Your task to perform on an android device: open sync settings in chrome Image 0: 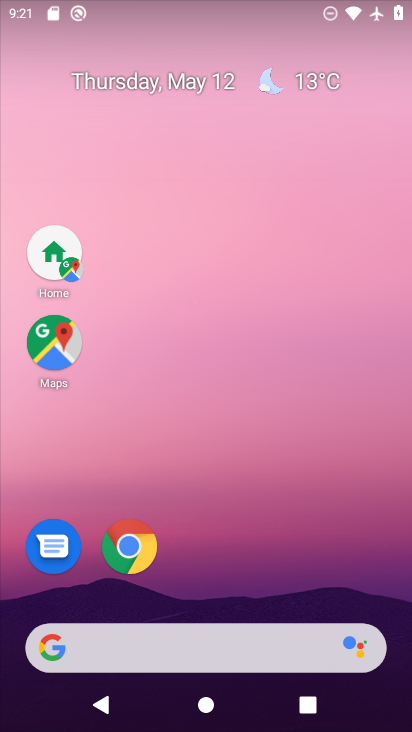
Step 0: press home button
Your task to perform on an android device: open sync settings in chrome Image 1: 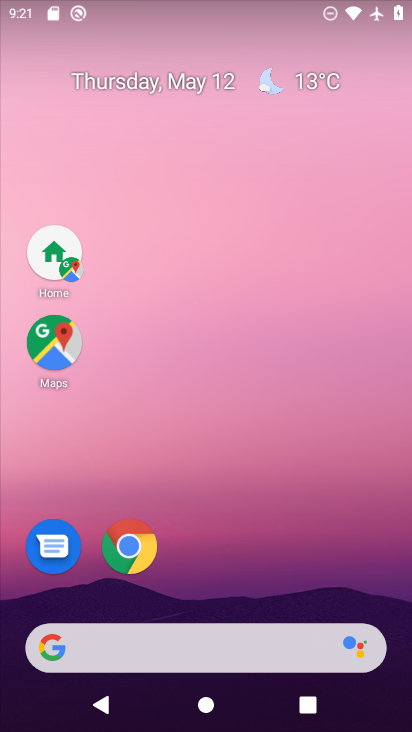
Step 1: click (135, 562)
Your task to perform on an android device: open sync settings in chrome Image 2: 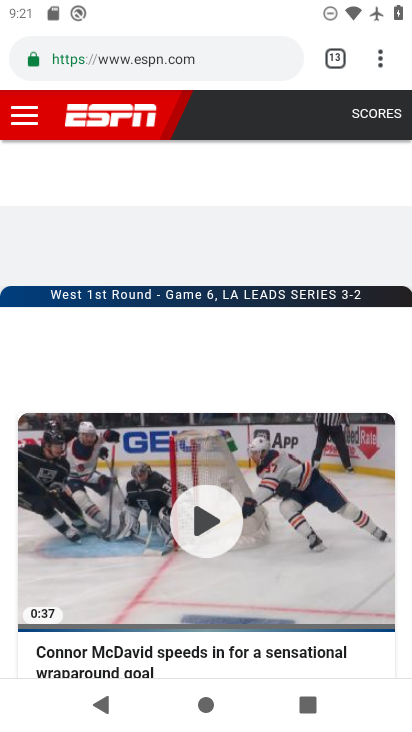
Step 2: drag from (377, 67) to (309, 572)
Your task to perform on an android device: open sync settings in chrome Image 3: 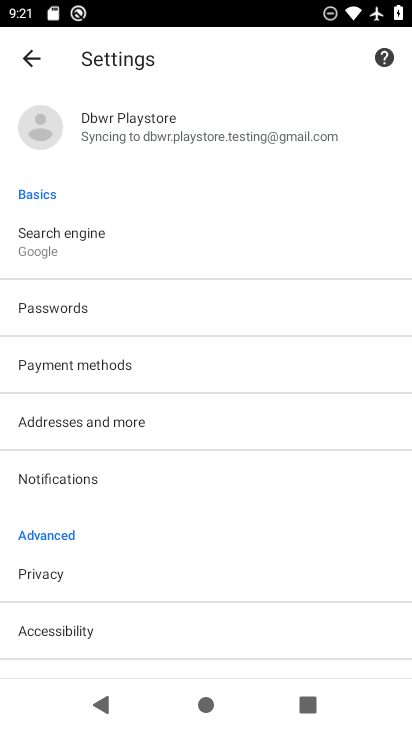
Step 3: click (211, 141)
Your task to perform on an android device: open sync settings in chrome Image 4: 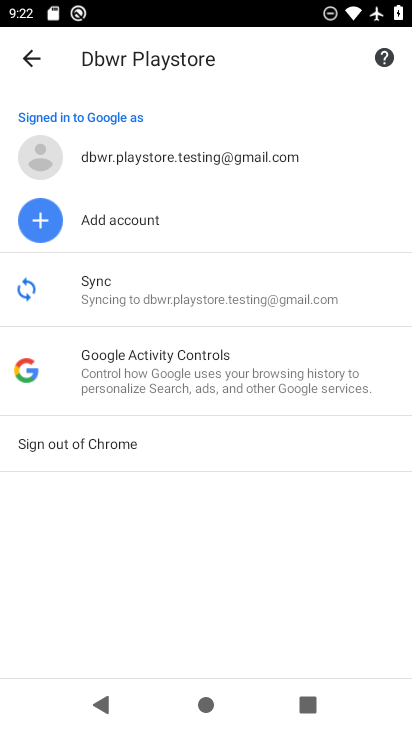
Step 4: click (109, 280)
Your task to perform on an android device: open sync settings in chrome Image 5: 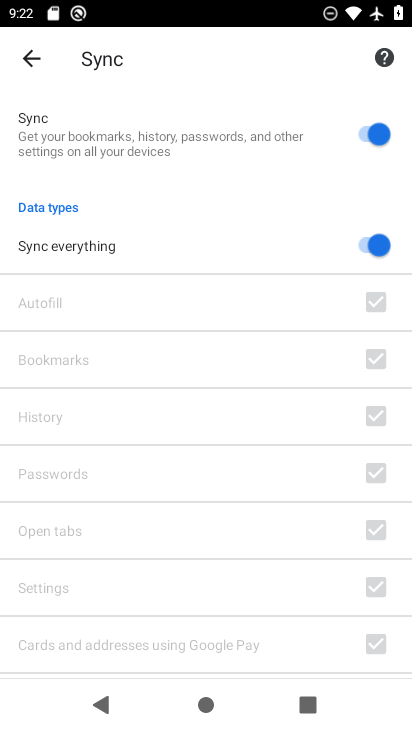
Step 5: task complete